Your task to perform on an android device: Open internet settings Image 0: 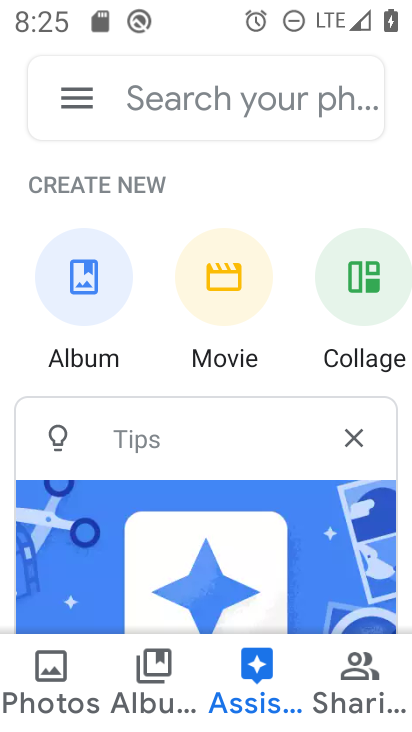
Step 0: press home button
Your task to perform on an android device: Open internet settings Image 1: 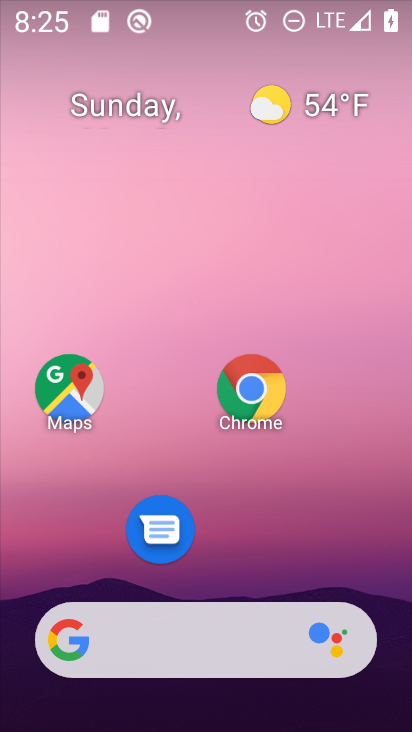
Step 1: drag from (225, 570) to (300, 31)
Your task to perform on an android device: Open internet settings Image 2: 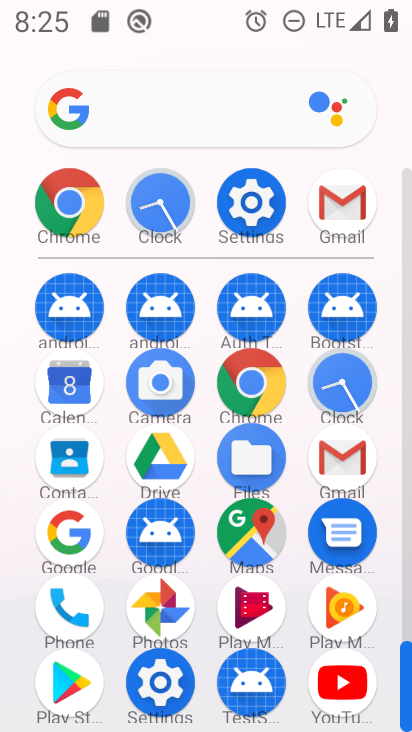
Step 2: click (248, 206)
Your task to perform on an android device: Open internet settings Image 3: 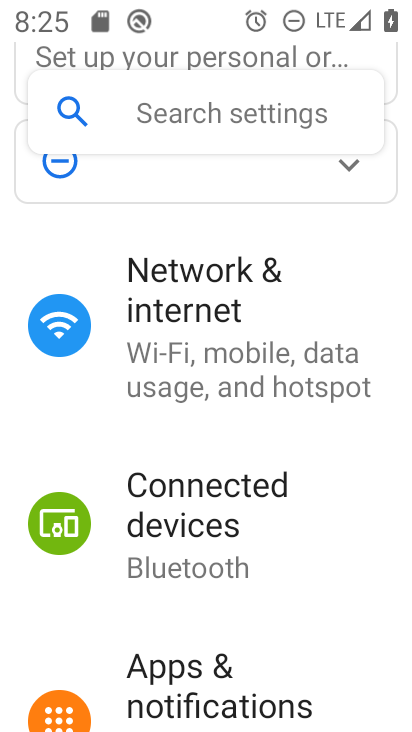
Step 3: click (209, 352)
Your task to perform on an android device: Open internet settings Image 4: 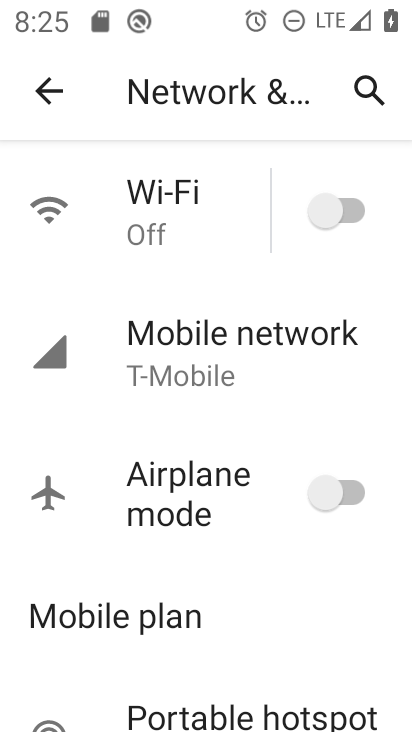
Step 4: click (209, 354)
Your task to perform on an android device: Open internet settings Image 5: 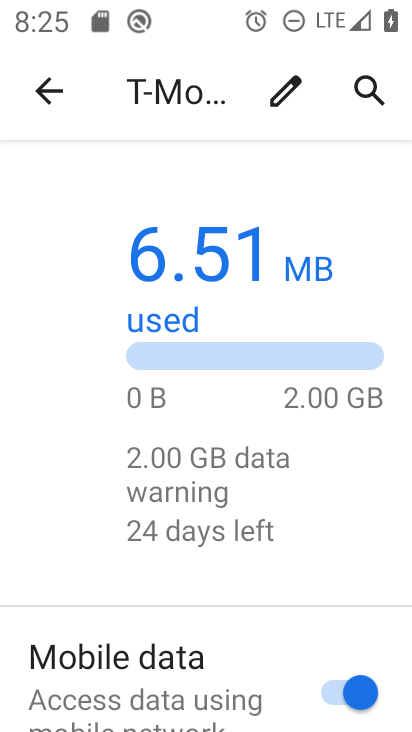
Step 5: task complete